Your task to perform on an android device: check storage Image 0: 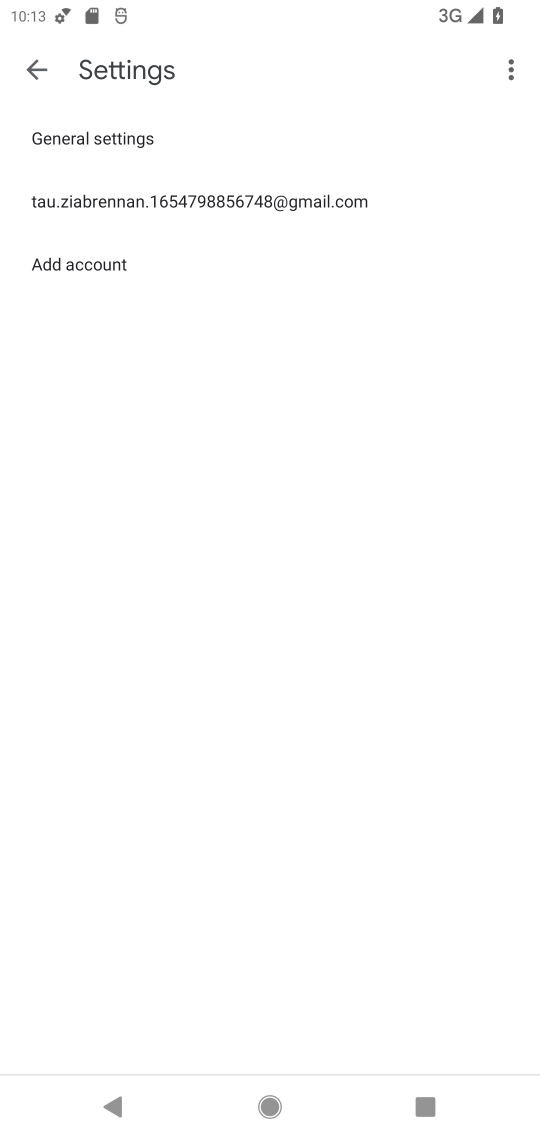
Step 0: press home button
Your task to perform on an android device: check storage Image 1: 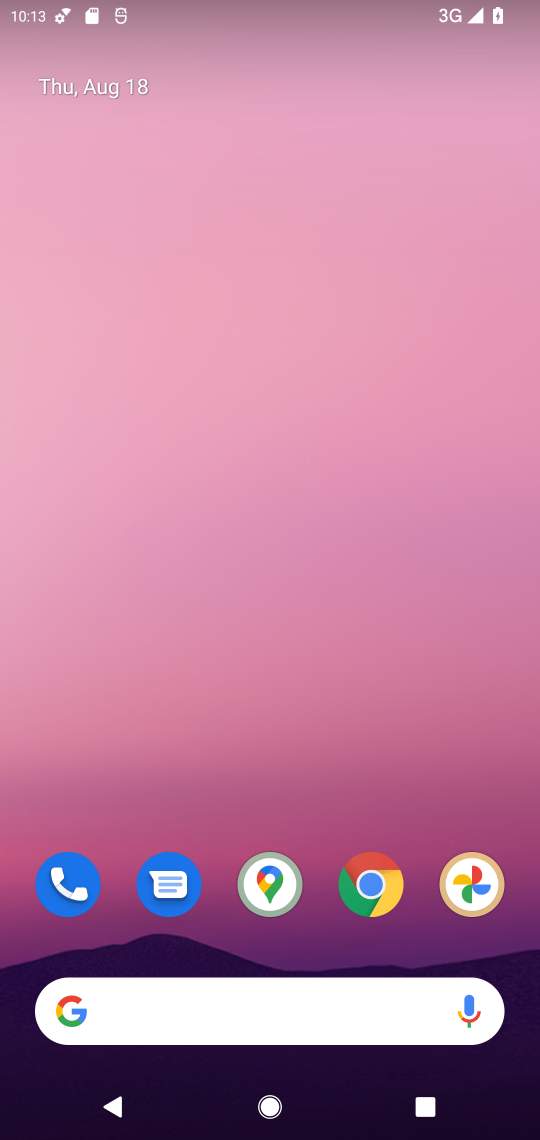
Step 1: drag from (218, 929) to (250, 25)
Your task to perform on an android device: check storage Image 2: 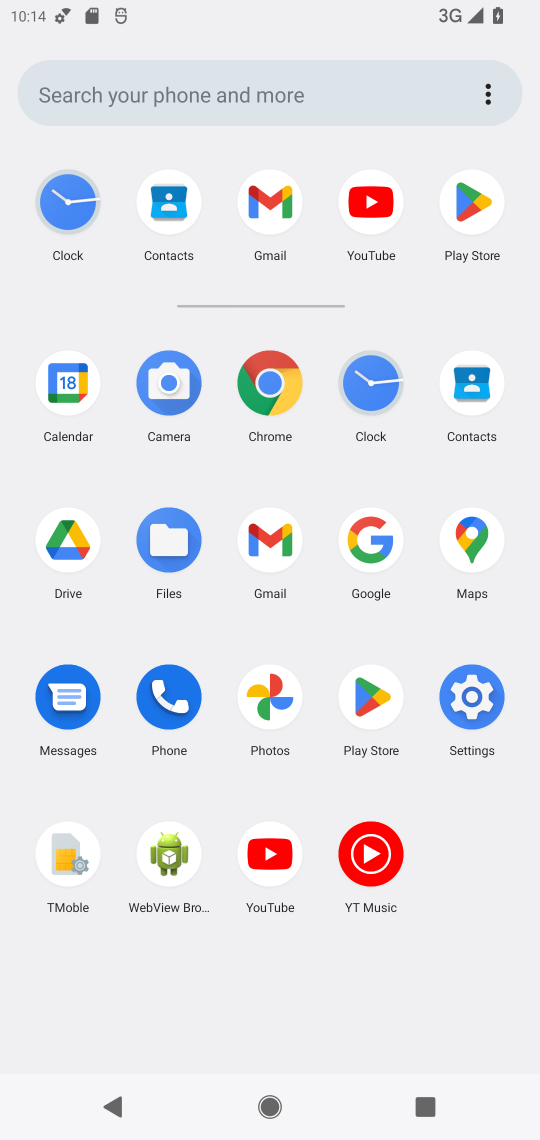
Step 2: click (472, 710)
Your task to perform on an android device: check storage Image 3: 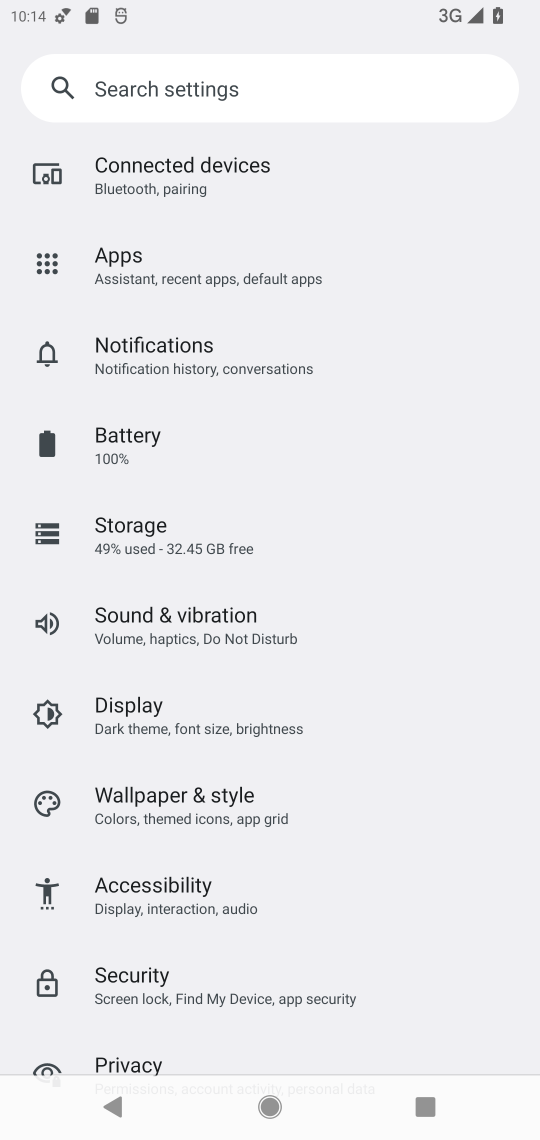
Step 3: click (98, 539)
Your task to perform on an android device: check storage Image 4: 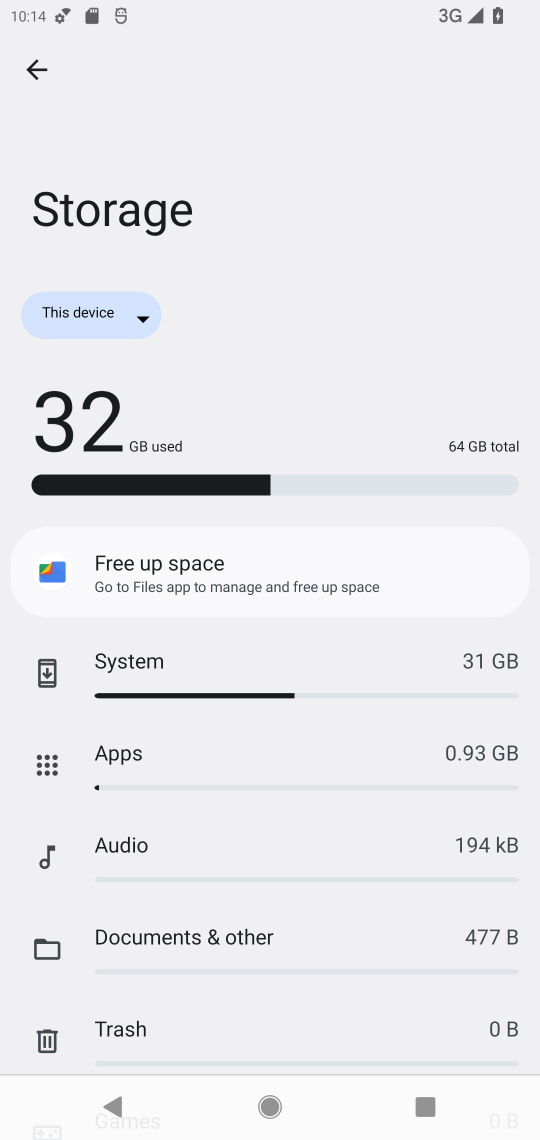
Step 4: task complete